Your task to perform on an android device: change notification settings in the gmail app Image 0: 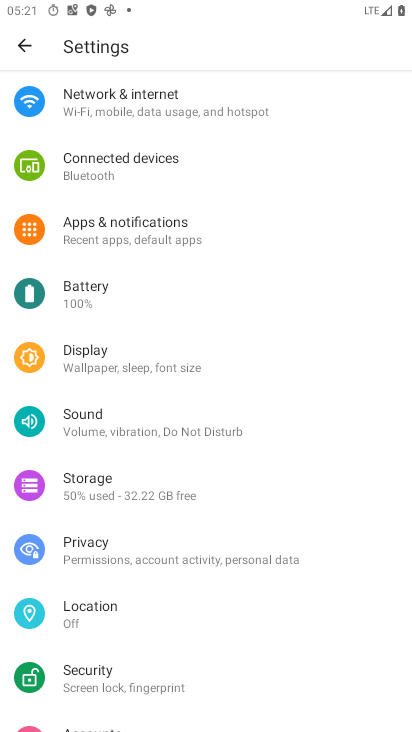
Step 0: press home button
Your task to perform on an android device: change notification settings in the gmail app Image 1: 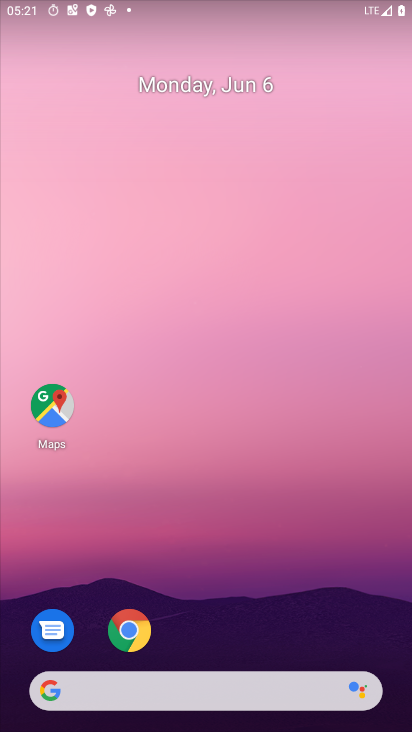
Step 1: drag from (233, 631) to (289, 26)
Your task to perform on an android device: change notification settings in the gmail app Image 2: 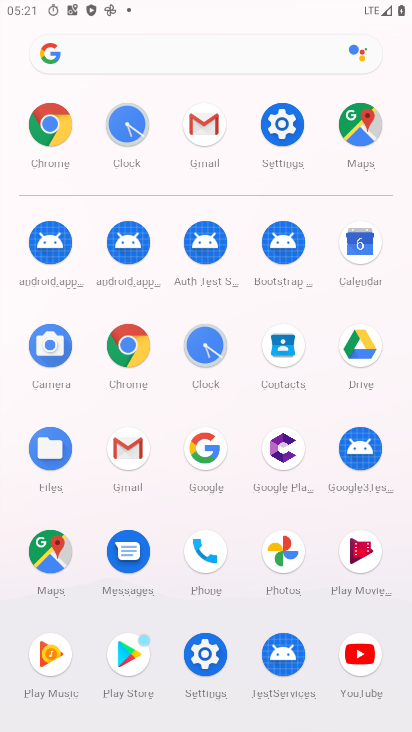
Step 2: click (122, 450)
Your task to perform on an android device: change notification settings in the gmail app Image 3: 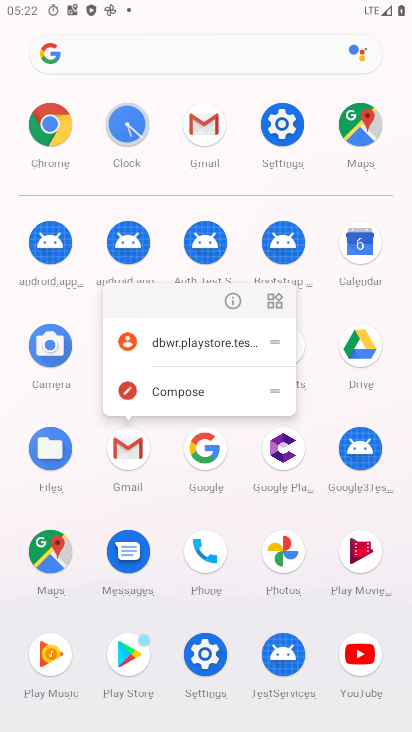
Step 3: click (228, 305)
Your task to perform on an android device: change notification settings in the gmail app Image 4: 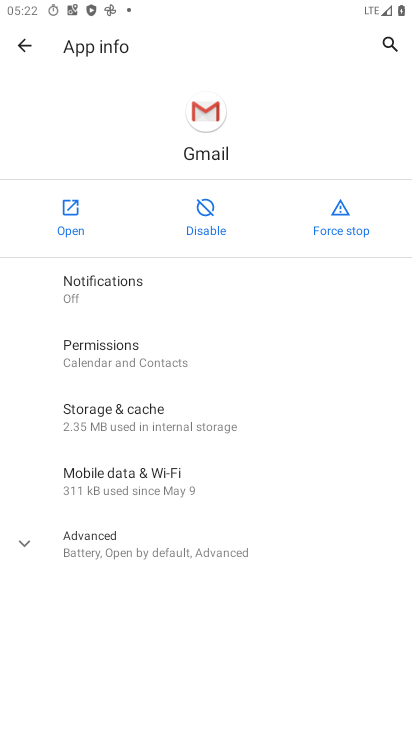
Step 4: click (117, 282)
Your task to perform on an android device: change notification settings in the gmail app Image 5: 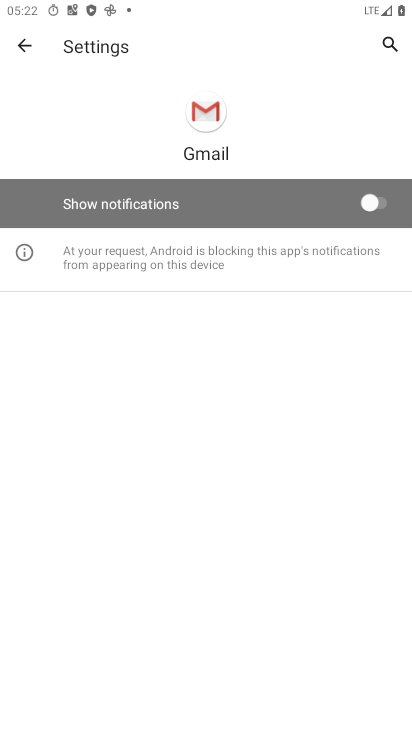
Step 5: click (375, 201)
Your task to perform on an android device: change notification settings in the gmail app Image 6: 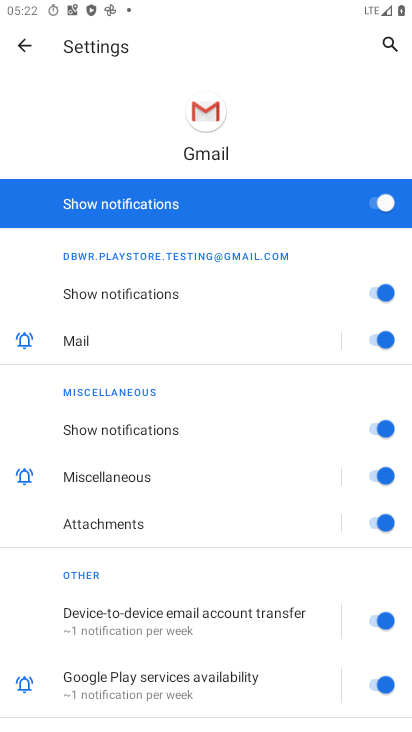
Step 6: task complete